Your task to perform on an android device: Go to network settings Image 0: 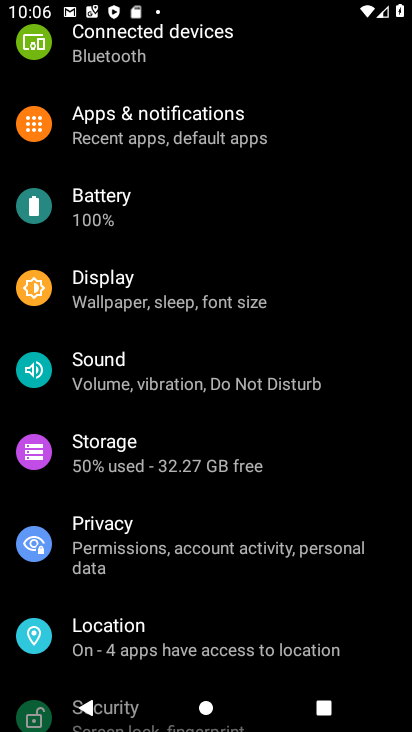
Step 0: drag from (174, 98) to (255, 608)
Your task to perform on an android device: Go to network settings Image 1: 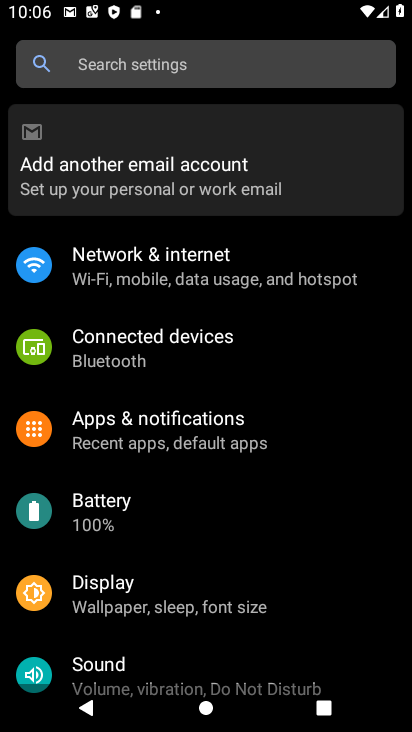
Step 1: click (209, 284)
Your task to perform on an android device: Go to network settings Image 2: 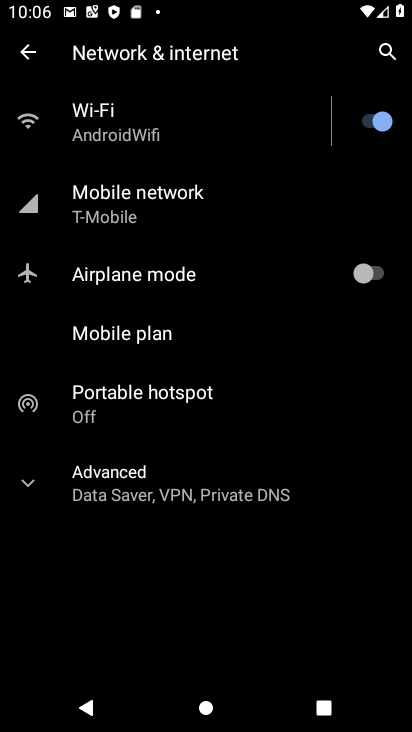
Step 2: task complete